Your task to perform on an android device: allow cookies in the chrome app Image 0: 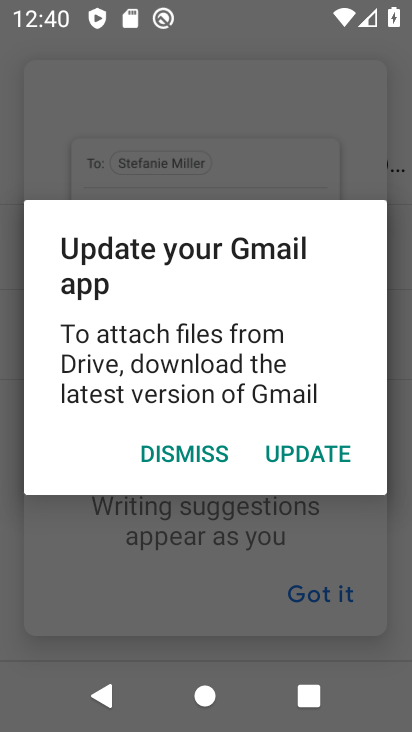
Step 0: press back button
Your task to perform on an android device: allow cookies in the chrome app Image 1: 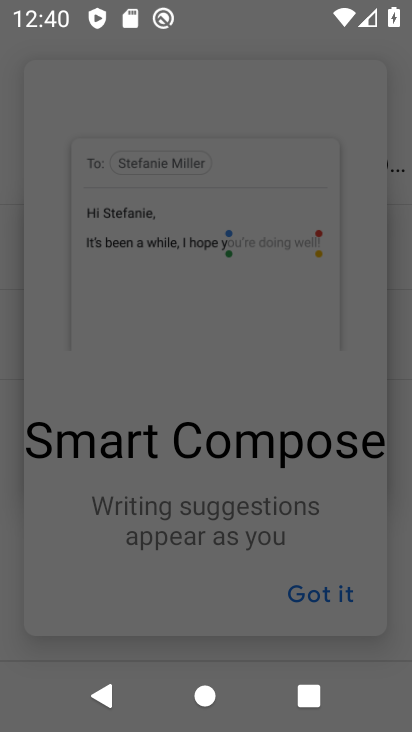
Step 1: press home button
Your task to perform on an android device: allow cookies in the chrome app Image 2: 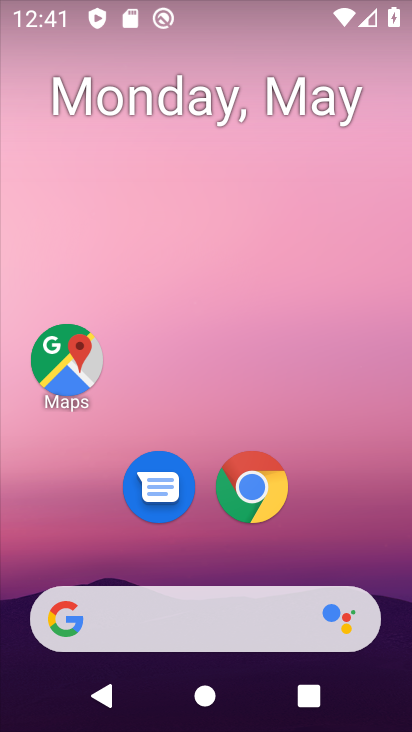
Step 2: drag from (186, 515) to (239, 134)
Your task to perform on an android device: allow cookies in the chrome app Image 3: 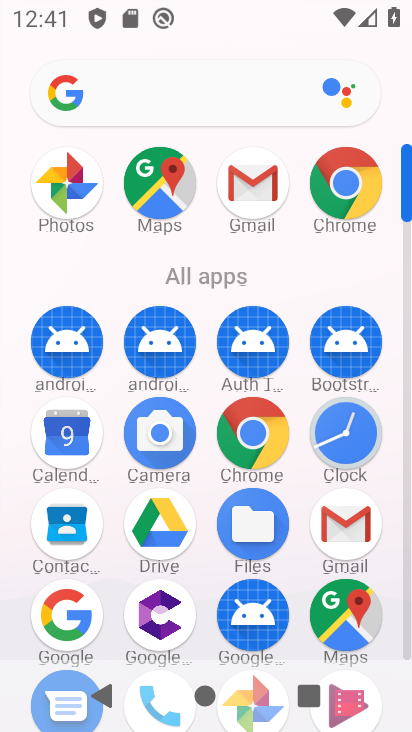
Step 3: click (260, 436)
Your task to perform on an android device: allow cookies in the chrome app Image 4: 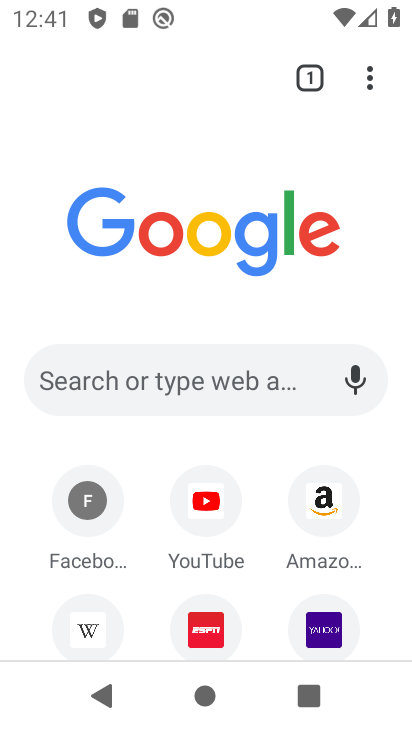
Step 4: click (375, 82)
Your task to perform on an android device: allow cookies in the chrome app Image 5: 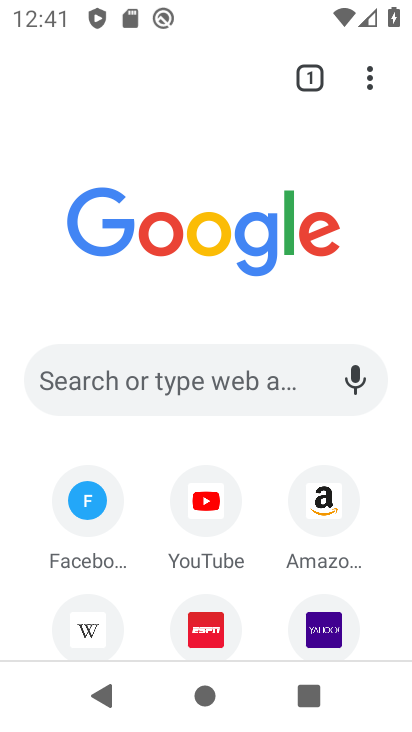
Step 5: drag from (375, 82) to (186, 549)
Your task to perform on an android device: allow cookies in the chrome app Image 6: 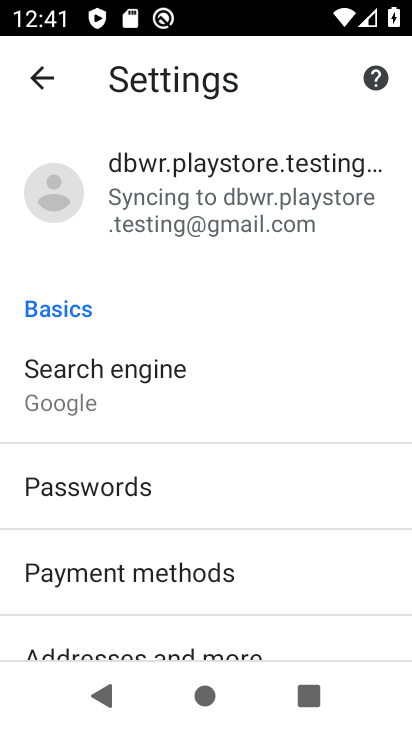
Step 6: drag from (160, 593) to (221, 409)
Your task to perform on an android device: allow cookies in the chrome app Image 7: 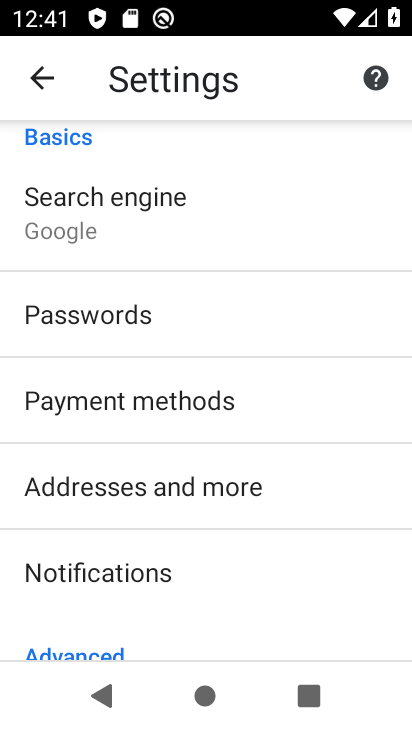
Step 7: drag from (244, 554) to (323, 325)
Your task to perform on an android device: allow cookies in the chrome app Image 8: 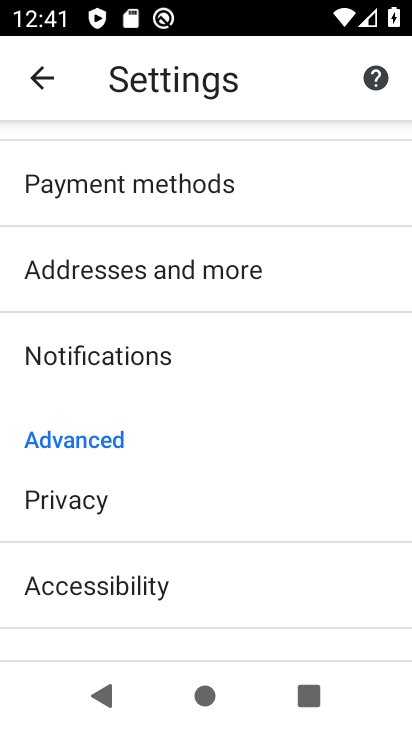
Step 8: drag from (184, 629) to (254, 443)
Your task to perform on an android device: allow cookies in the chrome app Image 9: 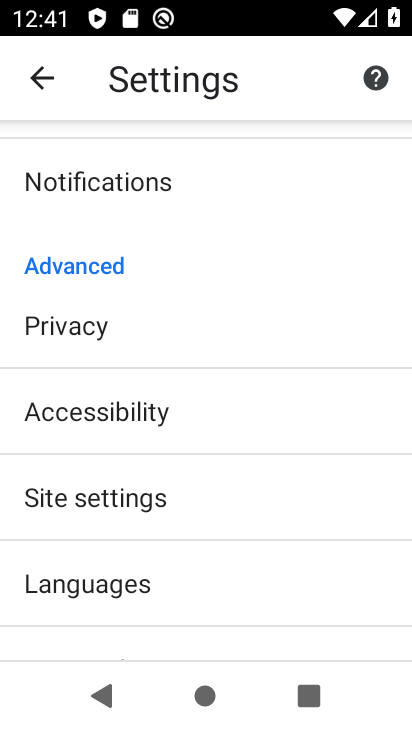
Step 9: click (228, 512)
Your task to perform on an android device: allow cookies in the chrome app Image 10: 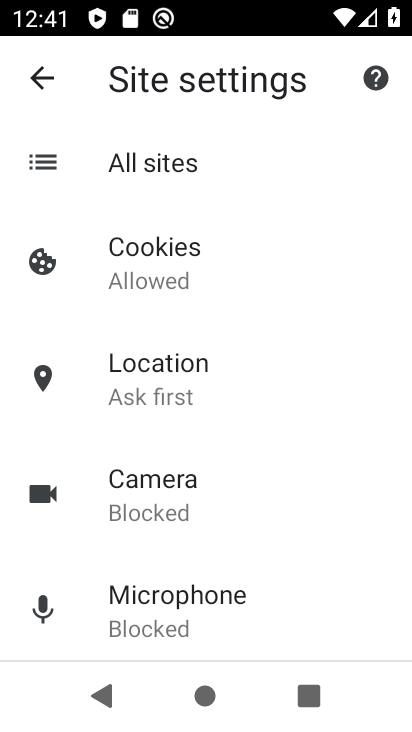
Step 10: click (283, 274)
Your task to perform on an android device: allow cookies in the chrome app Image 11: 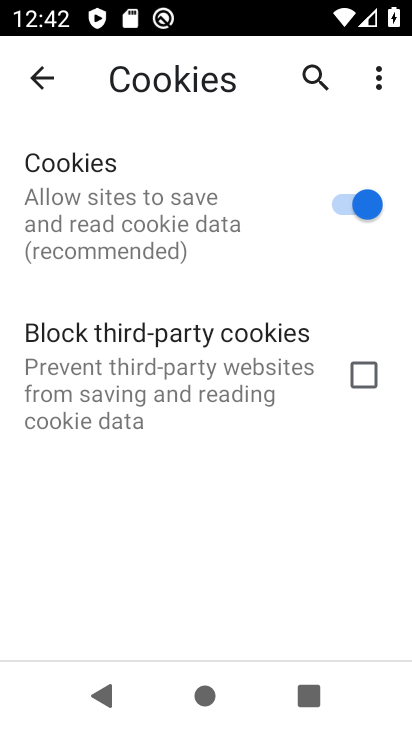
Step 11: task complete